Your task to perform on an android device: Go to Android settings Image 0: 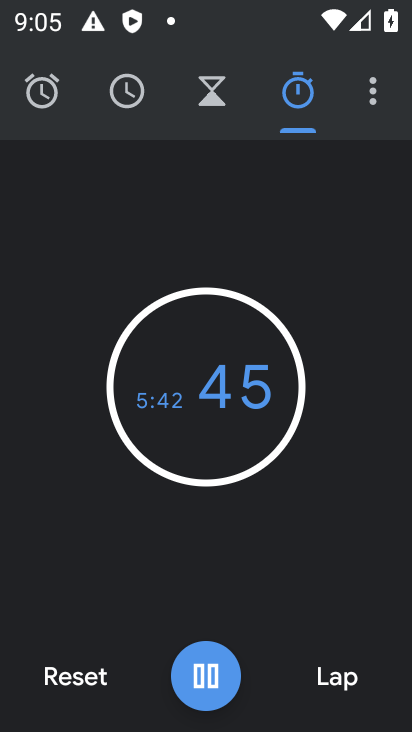
Step 0: drag from (332, 530) to (323, 319)
Your task to perform on an android device: Go to Android settings Image 1: 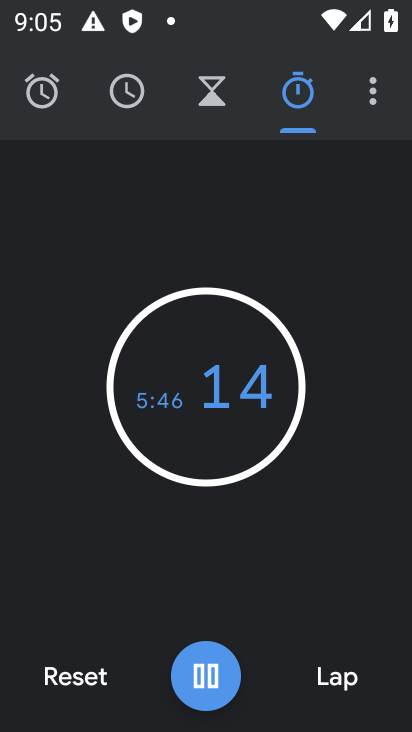
Step 1: click (79, 674)
Your task to perform on an android device: Go to Android settings Image 2: 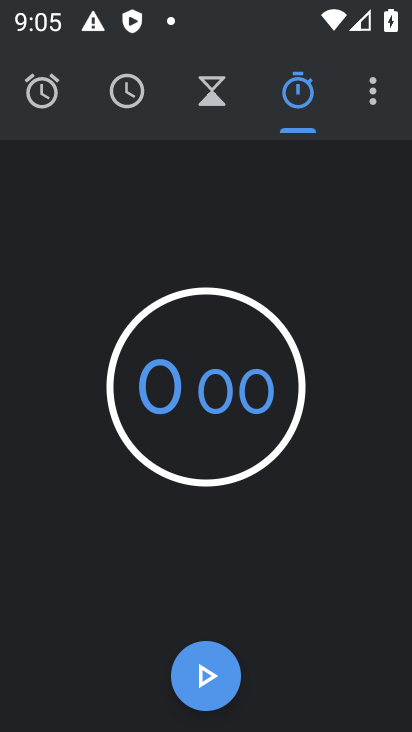
Step 2: press home button
Your task to perform on an android device: Go to Android settings Image 3: 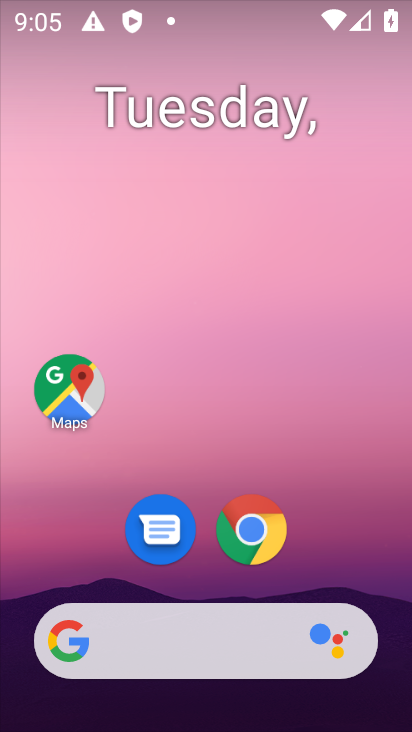
Step 3: drag from (201, 525) to (248, 293)
Your task to perform on an android device: Go to Android settings Image 4: 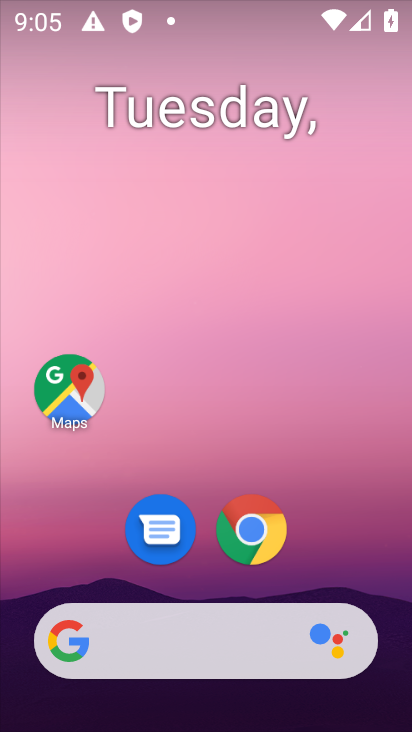
Step 4: drag from (201, 555) to (234, 56)
Your task to perform on an android device: Go to Android settings Image 5: 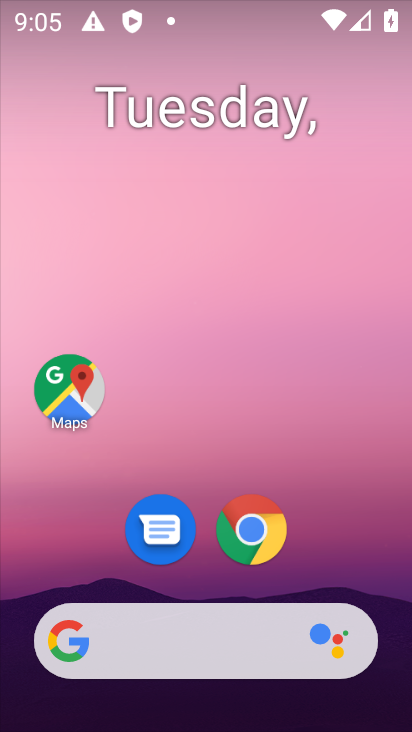
Step 5: drag from (215, 547) to (291, 150)
Your task to perform on an android device: Go to Android settings Image 6: 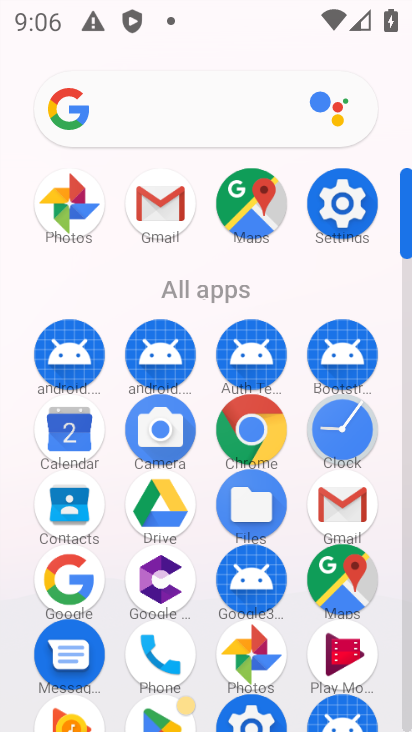
Step 6: click (339, 185)
Your task to perform on an android device: Go to Android settings Image 7: 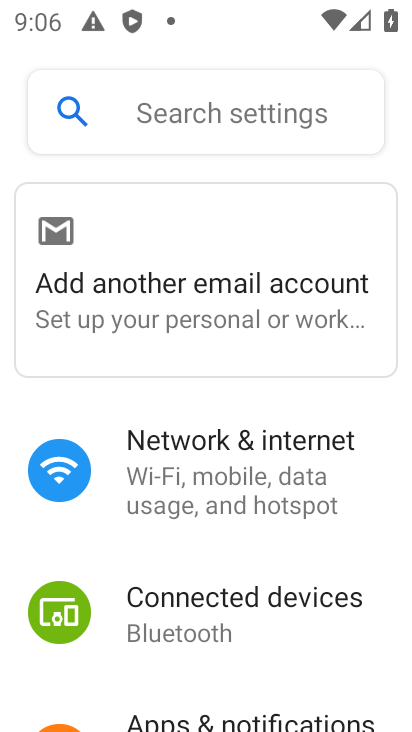
Step 7: drag from (236, 650) to (258, 62)
Your task to perform on an android device: Go to Android settings Image 8: 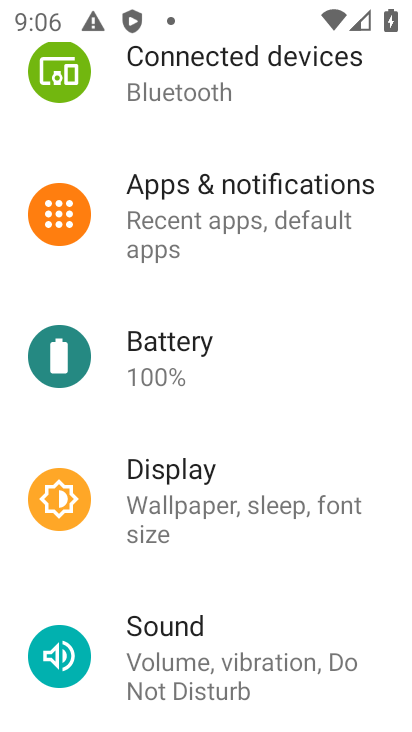
Step 8: drag from (139, 607) to (229, 163)
Your task to perform on an android device: Go to Android settings Image 9: 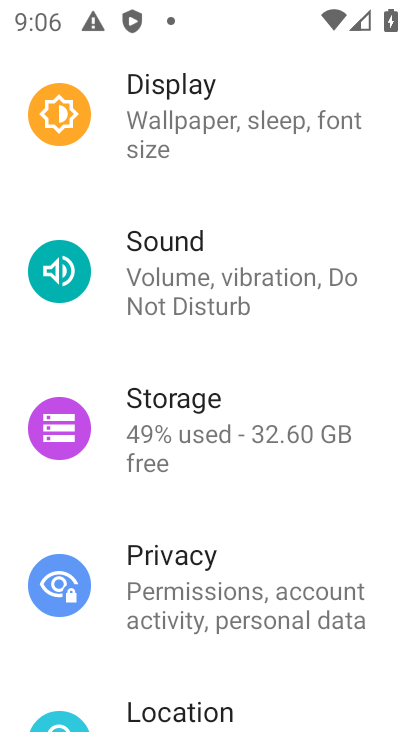
Step 9: drag from (213, 624) to (279, 103)
Your task to perform on an android device: Go to Android settings Image 10: 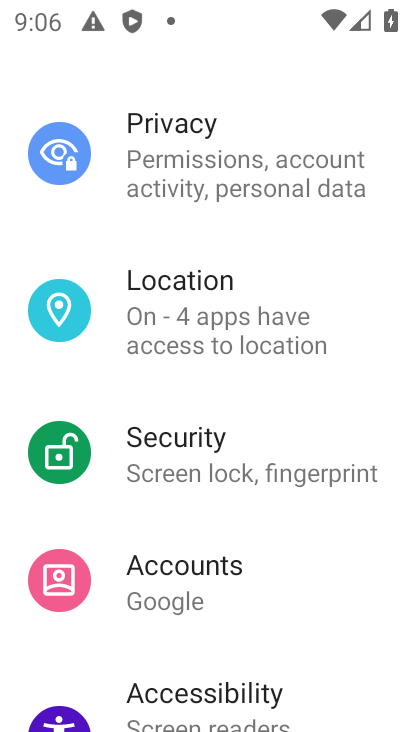
Step 10: drag from (199, 552) to (227, 190)
Your task to perform on an android device: Go to Android settings Image 11: 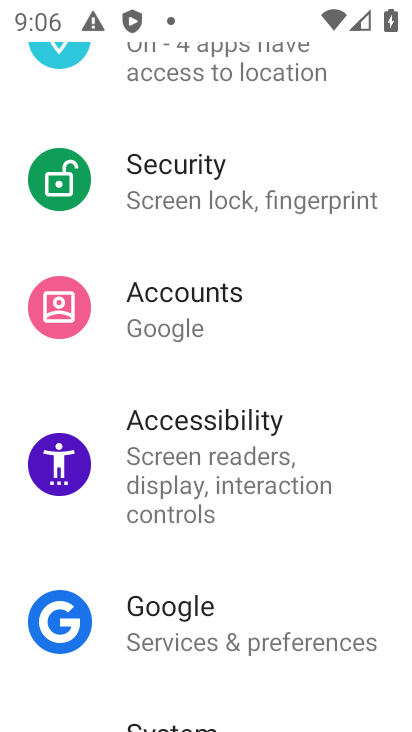
Step 11: drag from (204, 544) to (231, 213)
Your task to perform on an android device: Go to Android settings Image 12: 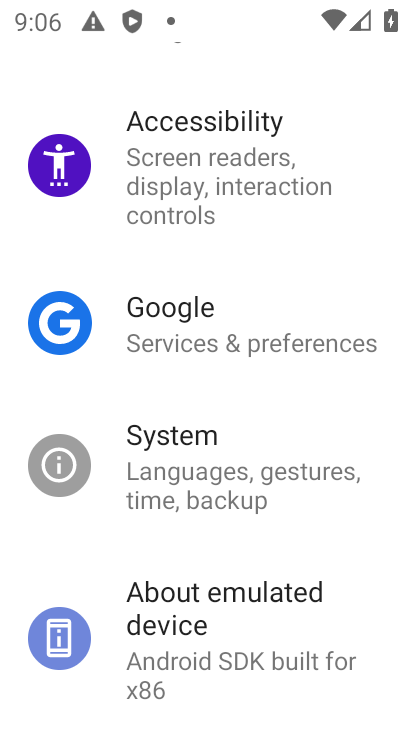
Step 12: drag from (191, 677) to (266, 168)
Your task to perform on an android device: Go to Android settings Image 13: 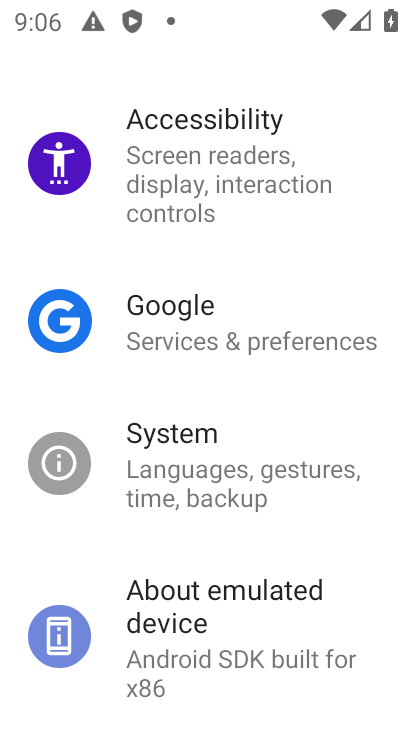
Step 13: click (177, 622)
Your task to perform on an android device: Go to Android settings Image 14: 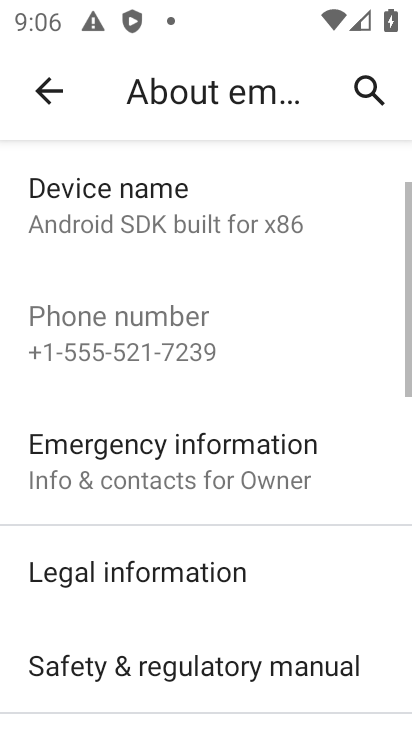
Step 14: drag from (197, 546) to (322, 65)
Your task to perform on an android device: Go to Android settings Image 15: 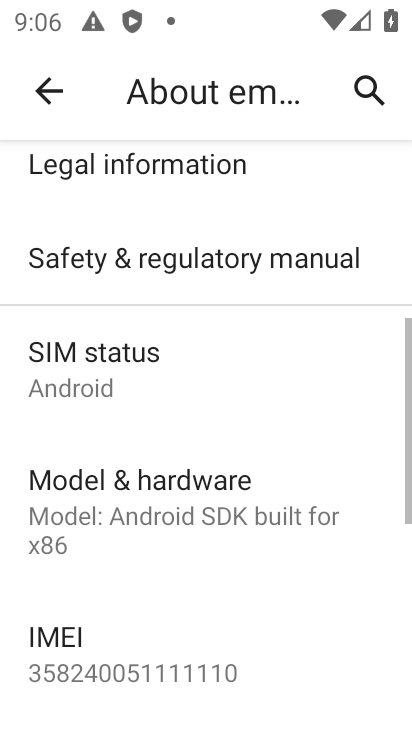
Step 15: drag from (143, 590) to (197, 265)
Your task to perform on an android device: Go to Android settings Image 16: 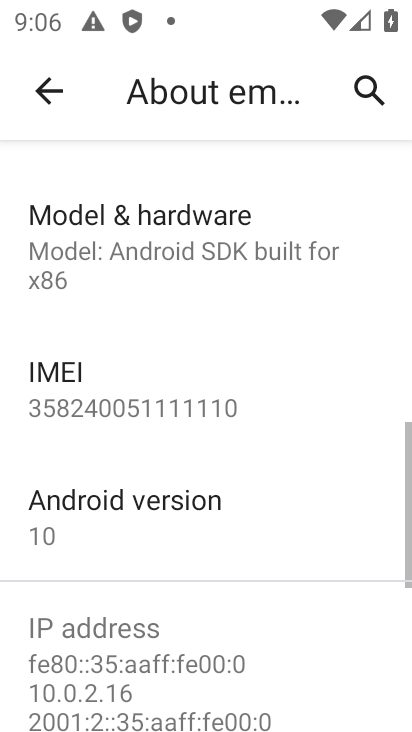
Step 16: click (136, 510)
Your task to perform on an android device: Go to Android settings Image 17: 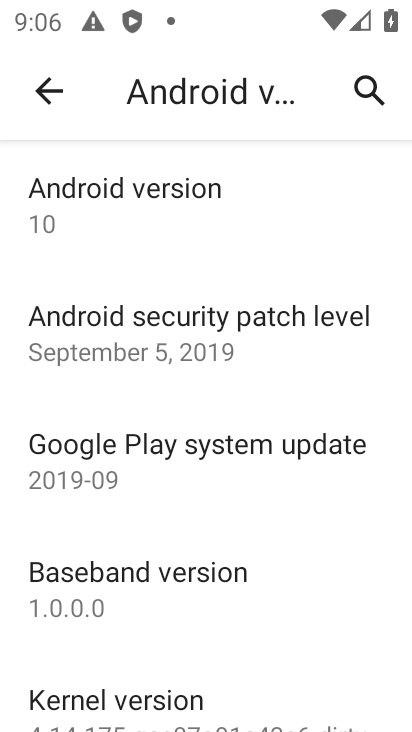
Step 17: click (167, 223)
Your task to perform on an android device: Go to Android settings Image 18: 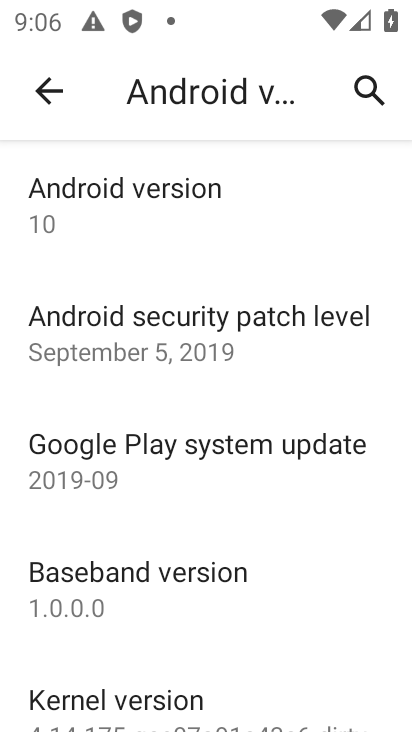
Step 18: click (145, 202)
Your task to perform on an android device: Go to Android settings Image 19: 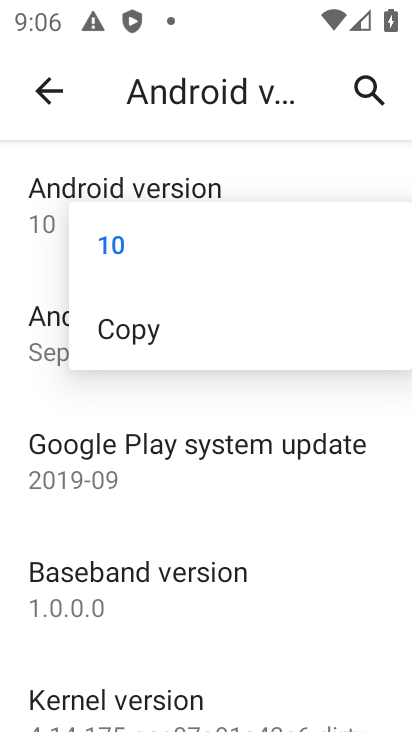
Step 19: click (229, 180)
Your task to perform on an android device: Go to Android settings Image 20: 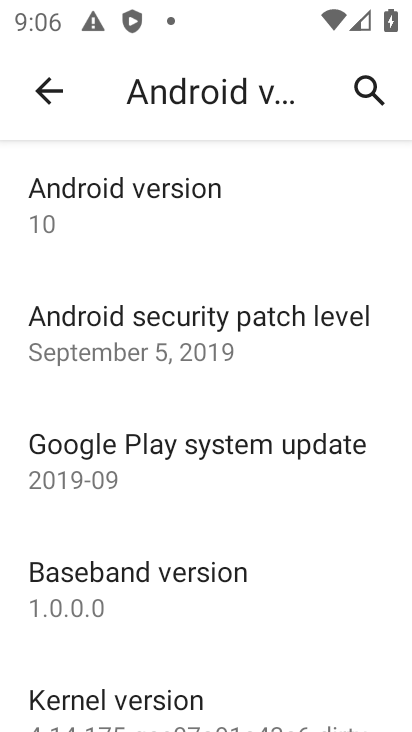
Step 20: click (95, 212)
Your task to perform on an android device: Go to Android settings Image 21: 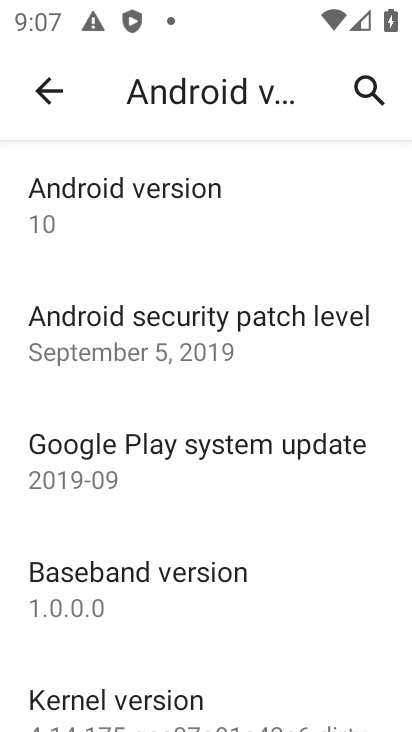
Step 21: task complete